Your task to perform on an android device: toggle sleep mode Image 0: 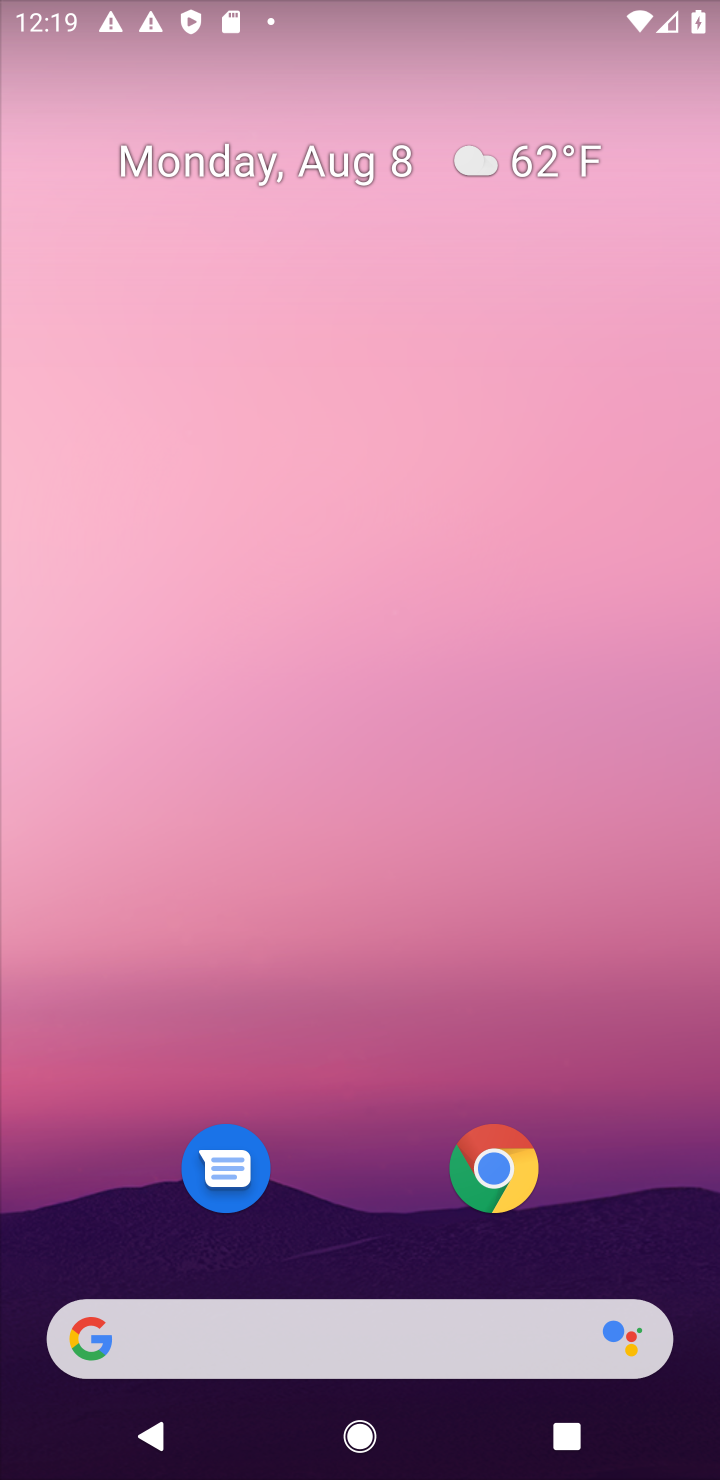
Step 0: drag from (404, 1297) to (401, 180)
Your task to perform on an android device: toggle sleep mode Image 1: 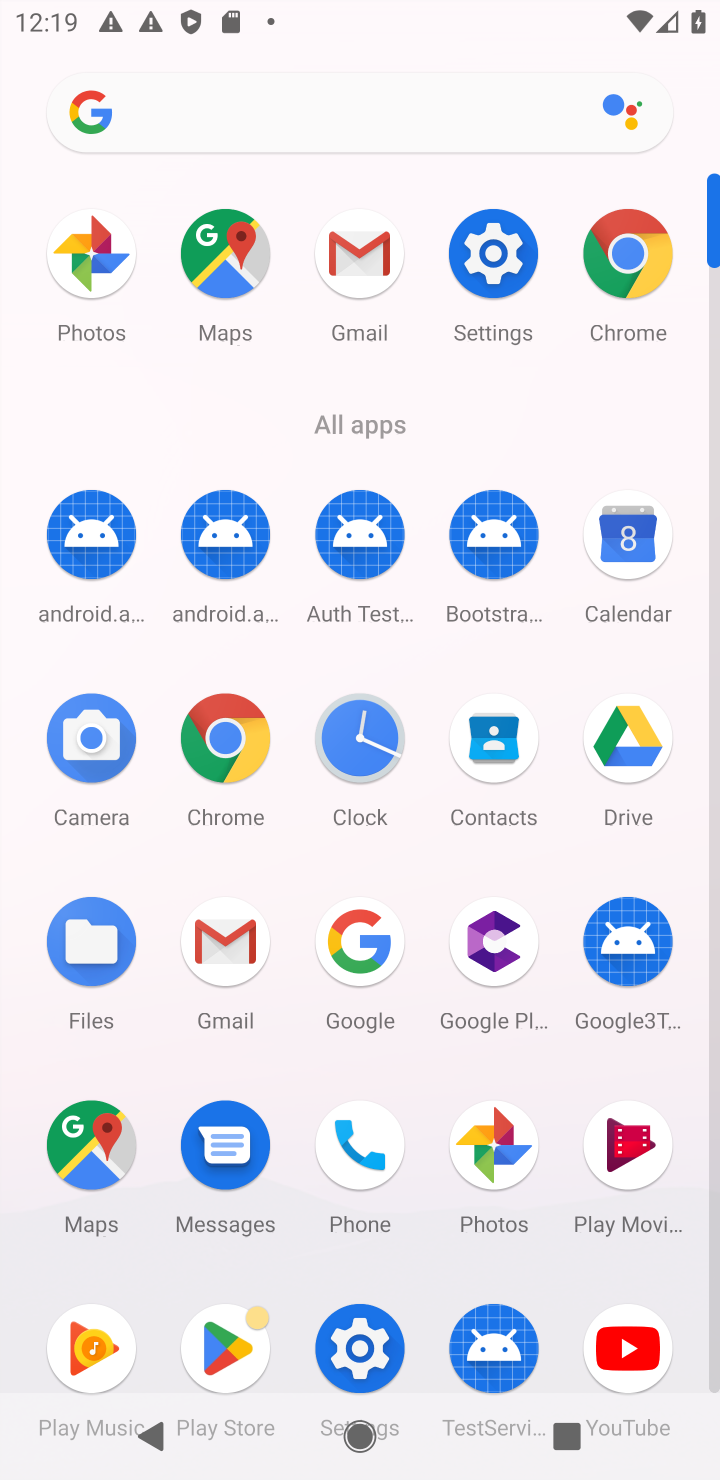
Step 1: click (502, 310)
Your task to perform on an android device: toggle sleep mode Image 2: 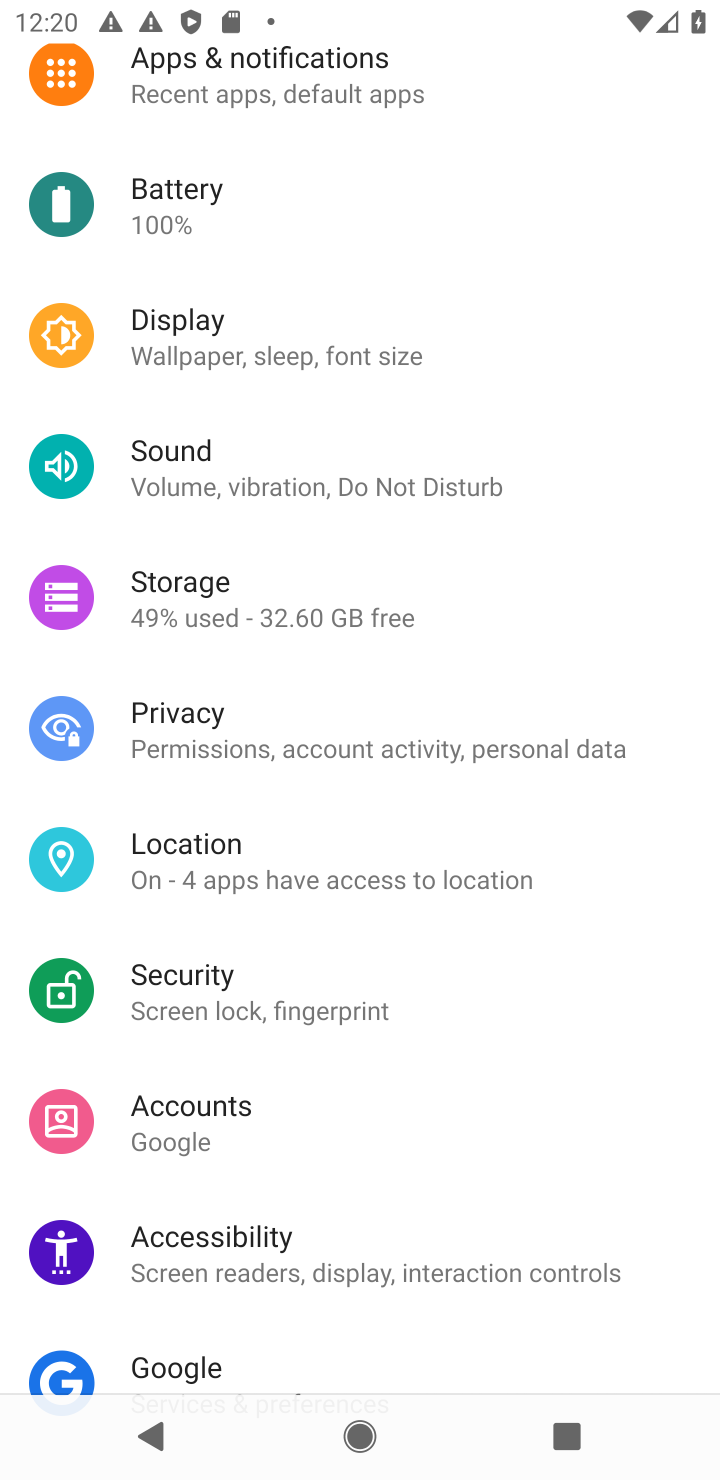
Step 2: task complete